Your task to perform on an android device: Open Google Chrome Image 0: 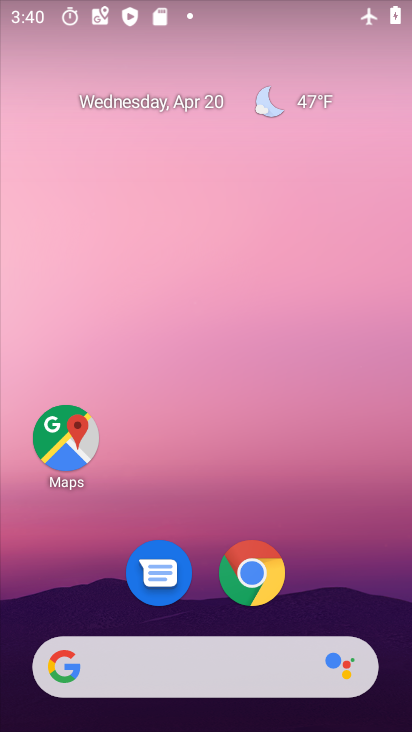
Step 0: click (256, 571)
Your task to perform on an android device: Open Google Chrome Image 1: 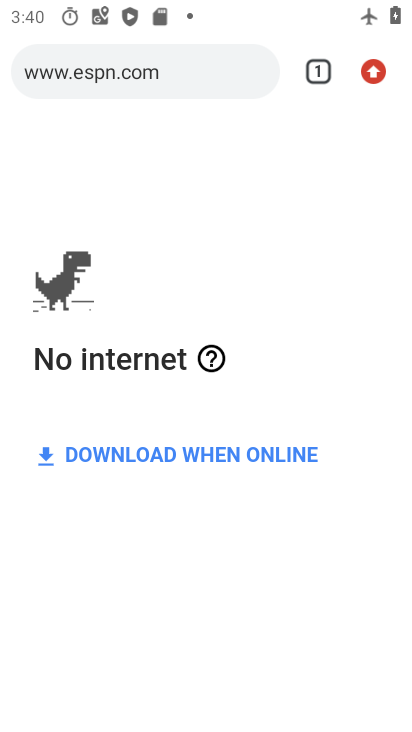
Step 1: task complete